Your task to perform on an android device: manage bookmarks in the chrome app Image 0: 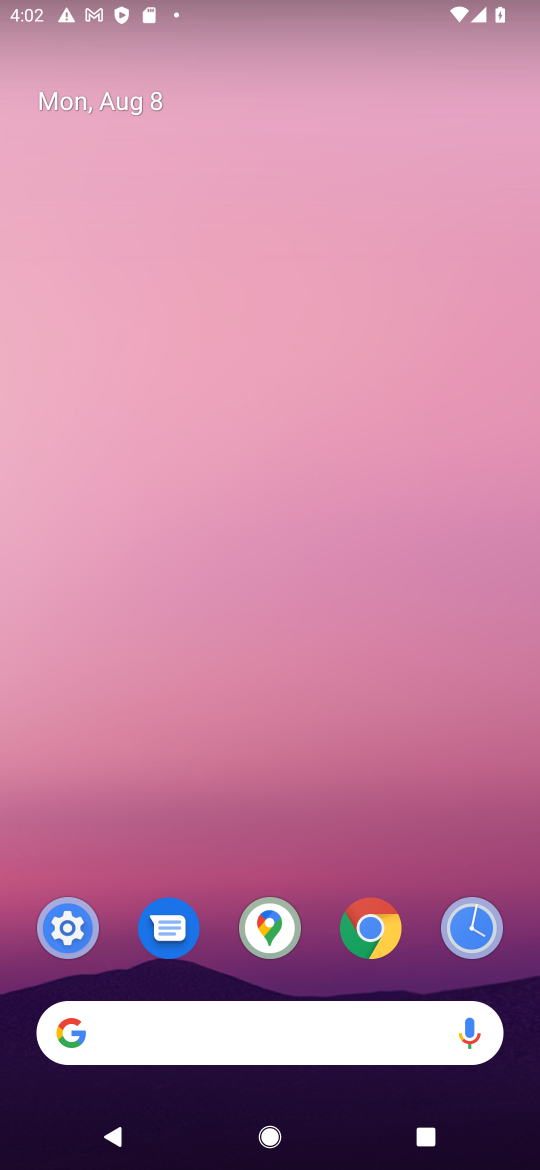
Step 0: click (365, 954)
Your task to perform on an android device: manage bookmarks in the chrome app Image 1: 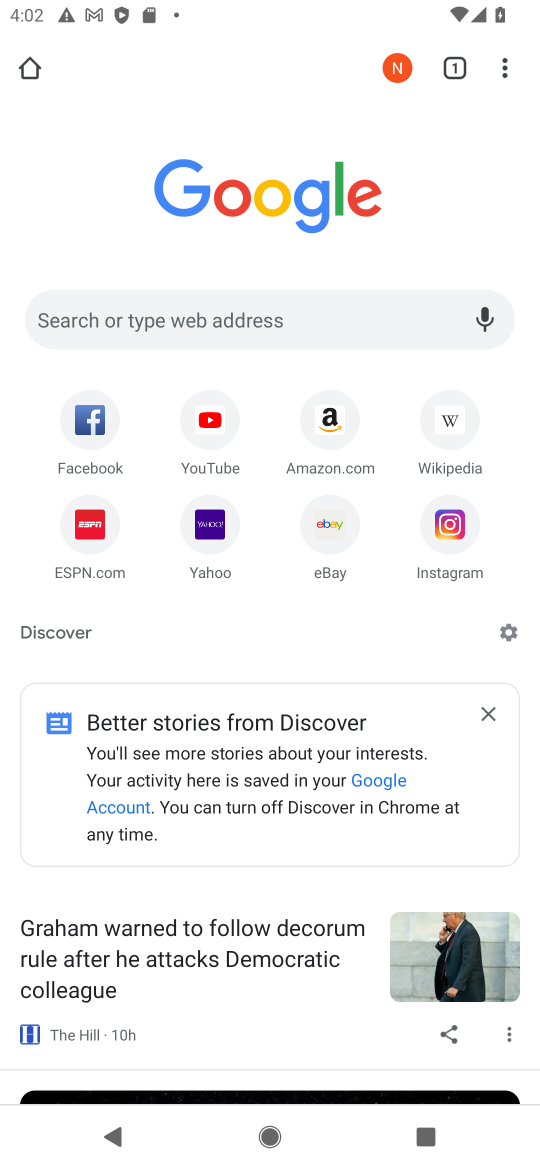
Step 1: click (504, 70)
Your task to perform on an android device: manage bookmarks in the chrome app Image 2: 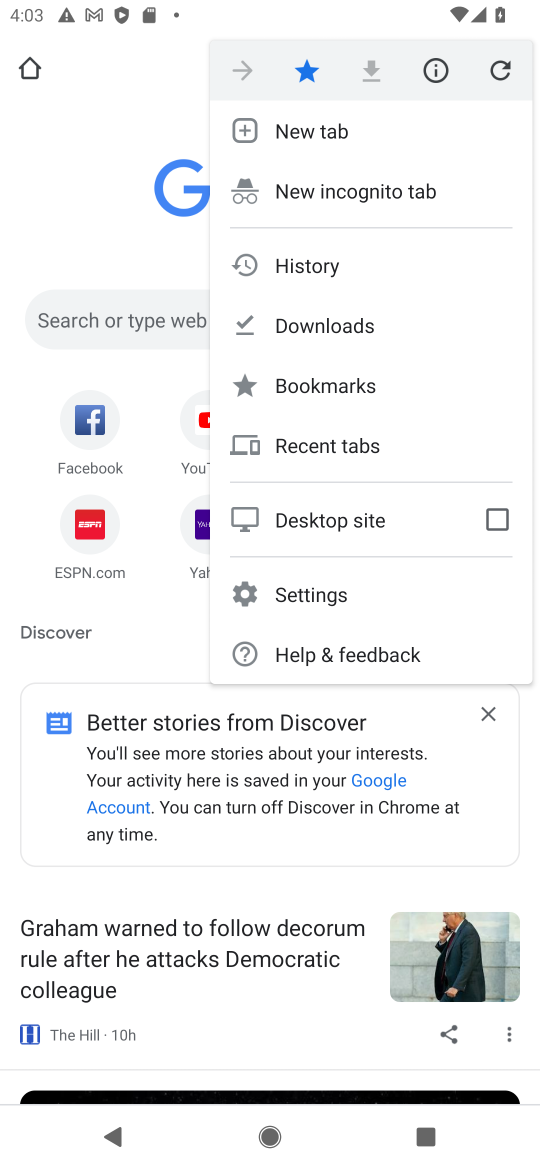
Step 2: click (347, 375)
Your task to perform on an android device: manage bookmarks in the chrome app Image 3: 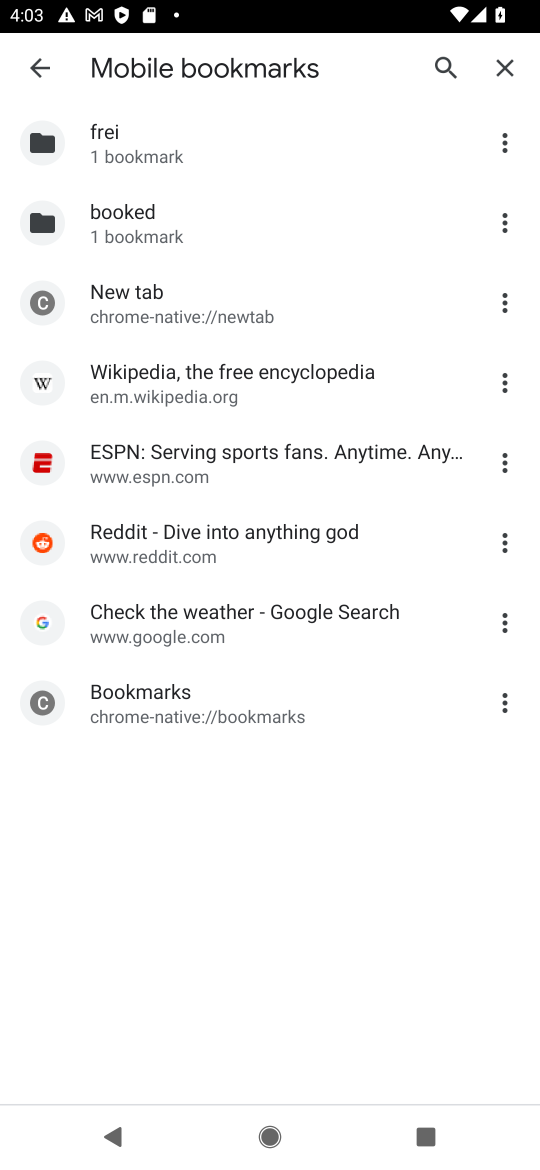
Step 3: click (278, 386)
Your task to perform on an android device: manage bookmarks in the chrome app Image 4: 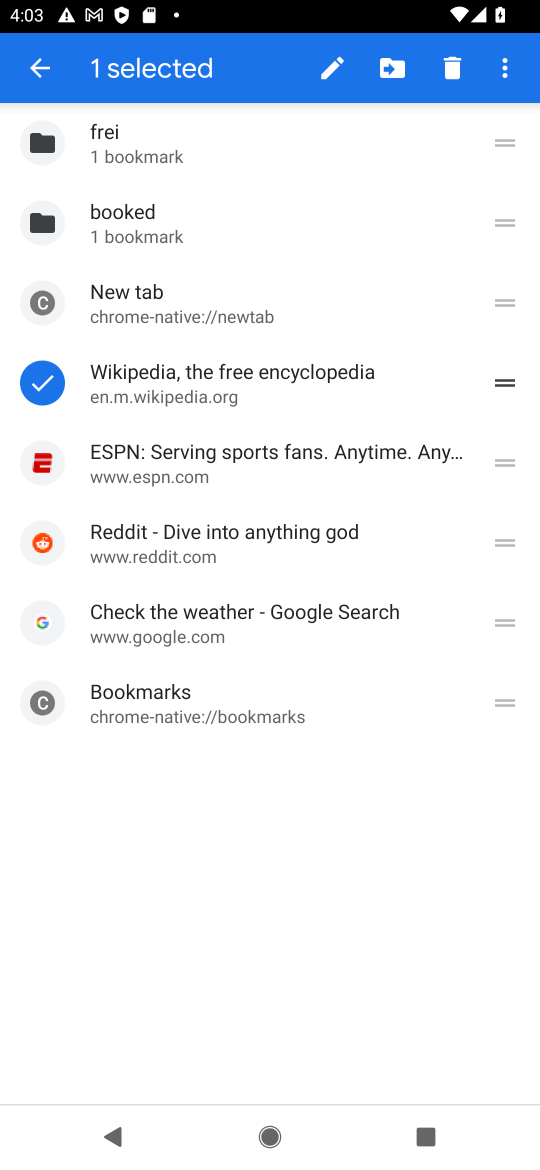
Step 4: click (388, 82)
Your task to perform on an android device: manage bookmarks in the chrome app Image 5: 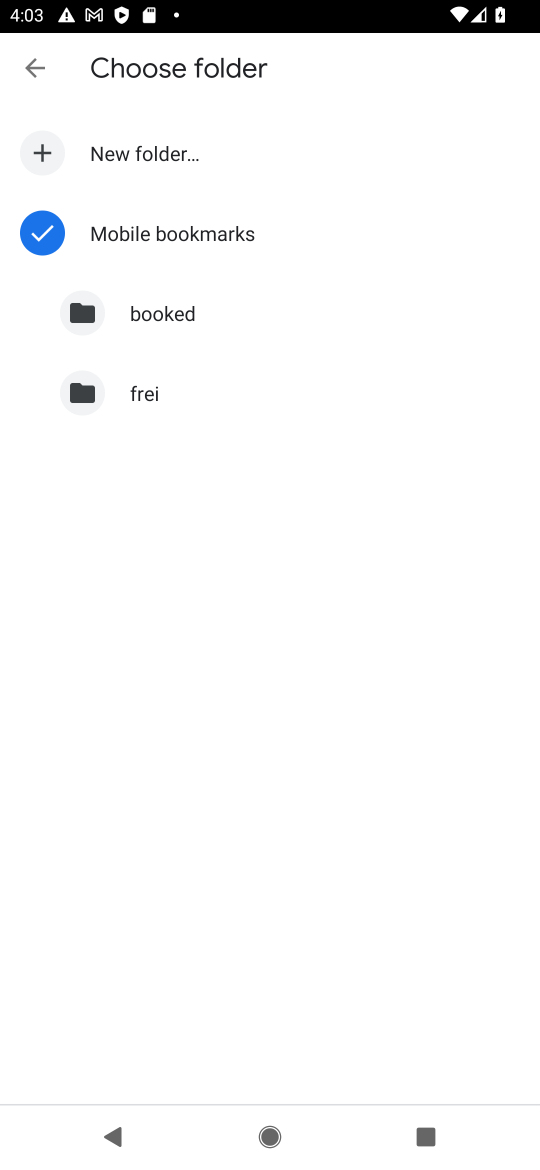
Step 5: click (281, 330)
Your task to perform on an android device: manage bookmarks in the chrome app Image 6: 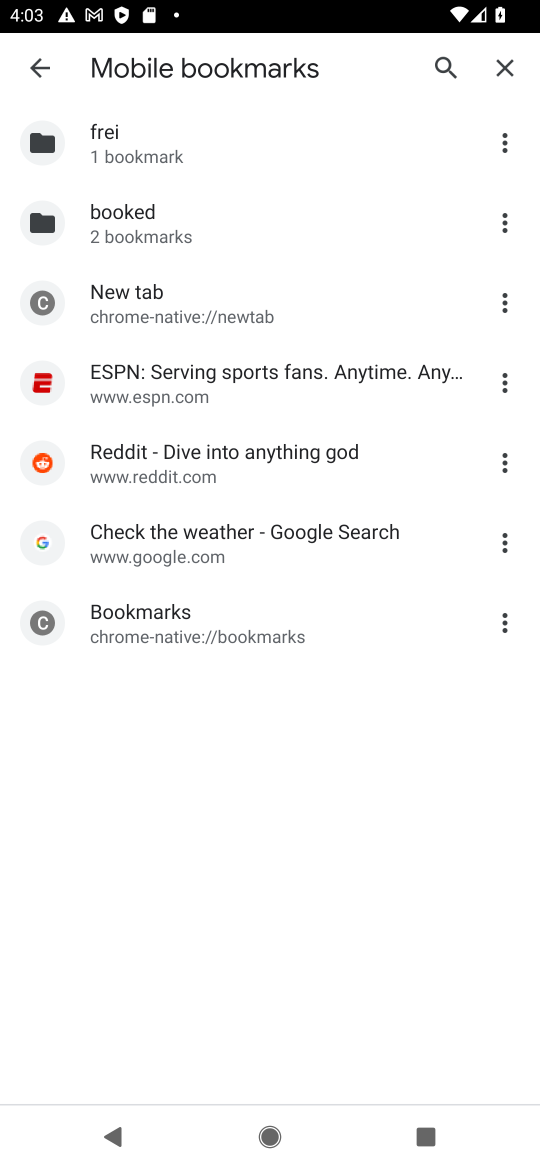
Step 6: task complete